Your task to perform on an android device: find snoozed emails in the gmail app Image 0: 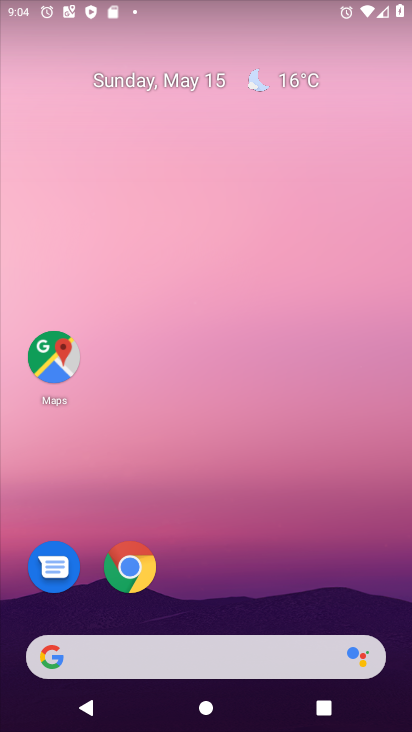
Step 0: drag from (202, 640) to (329, 218)
Your task to perform on an android device: find snoozed emails in the gmail app Image 1: 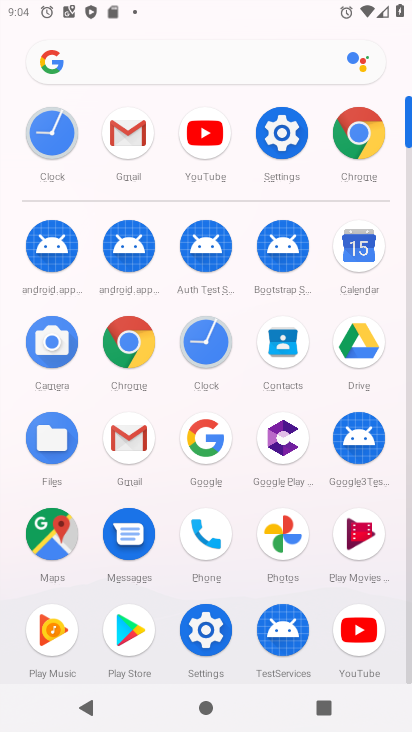
Step 1: click (119, 429)
Your task to perform on an android device: find snoozed emails in the gmail app Image 2: 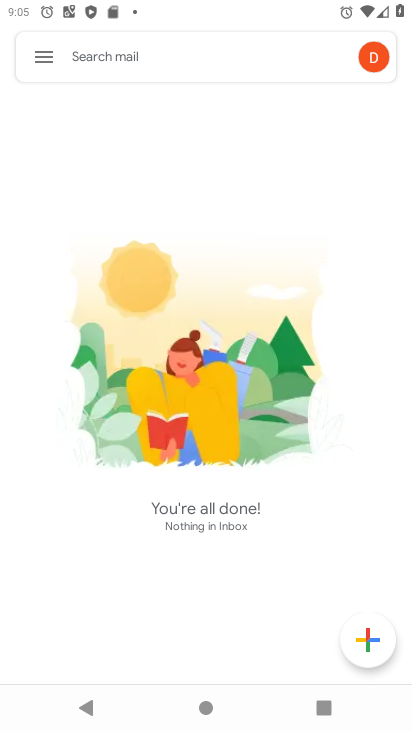
Step 2: click (53, 69)
Your task to perform on an android device: find snoozed emails in the gmail app Image 3: 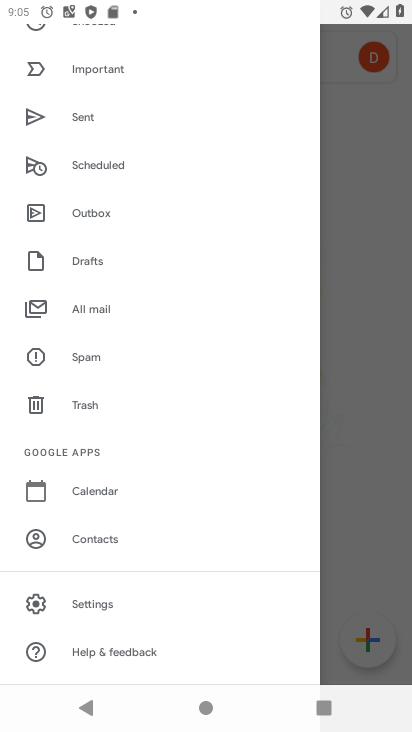
Step 3: drag from (120, 149) to (141, 516)
Your task to perform on an android device: find snoozed emails in the gmail app Image 4: 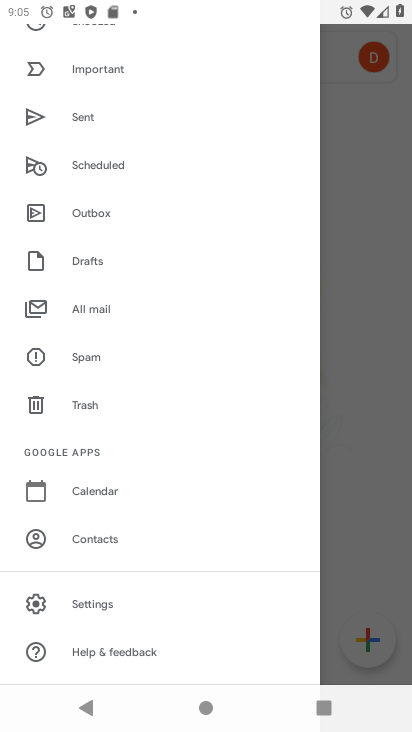
Step 4: drag from (154, 167) to (163, 598)
Your task to perform on an android device: find snoozed emails in the gmail app Image 5: 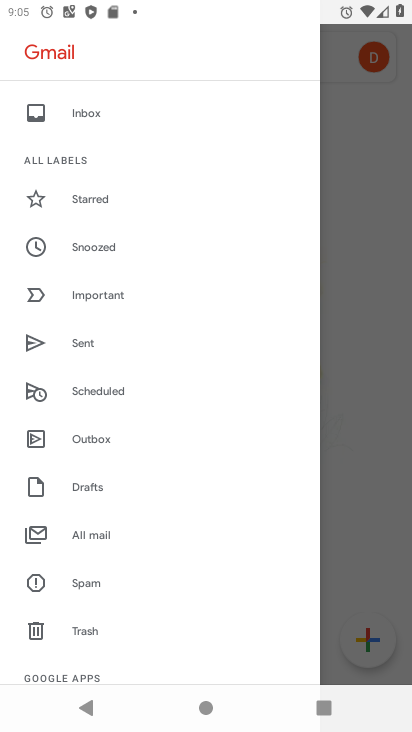
Step 5: click (106, 255)
Your task to perform on an android device: find snoozed emails in the gmail app Image 6: 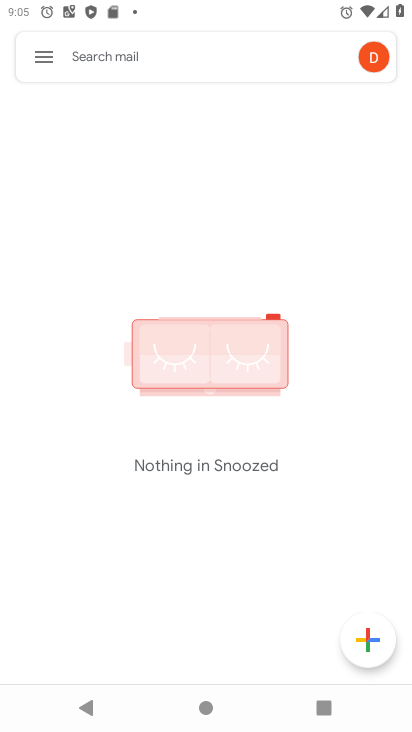
Step 6: task complete